Your task to perform on an android device: turn off sleep mode Image 0: 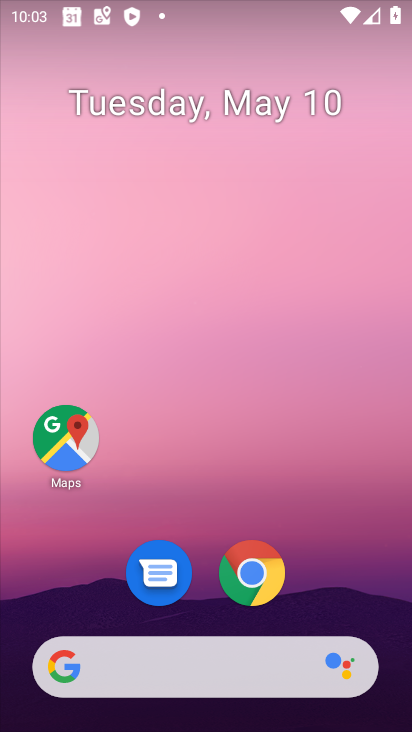
Step 0: drag from (340, 562) to (240, 149)
Your task to perform on an android device: turn off sleep mode Image 1: 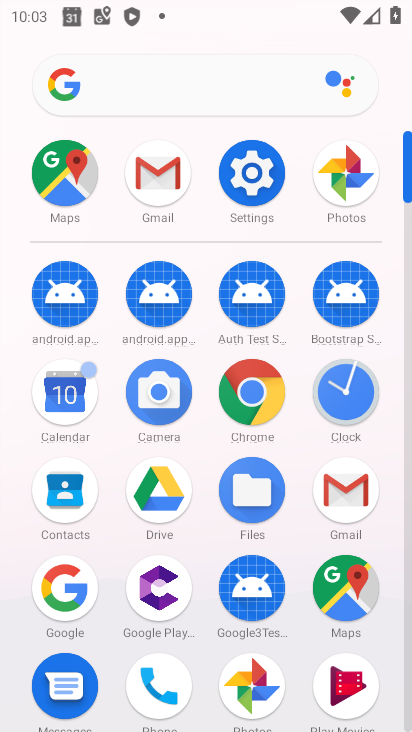
Step 1: click (257, 156)
Your task to perform on an android device: turn off sleep mode Image 2: 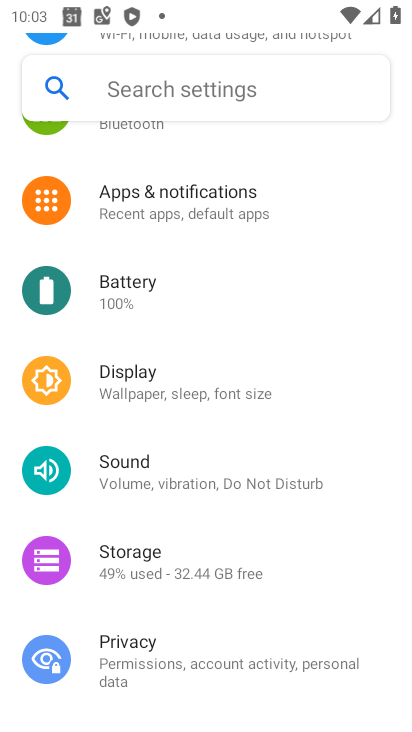
Step 2: drag from (197, 289) to (197, 708)
Your task to perform on an android device: turn off sleep mode Image 3: 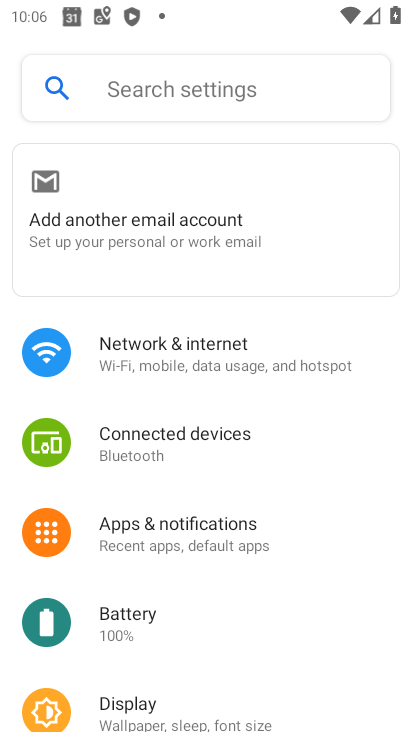
Step 3: drag from (176, 591) to (140, 421)
Your task to perform on an android device: turn off sleep mode Image 4: 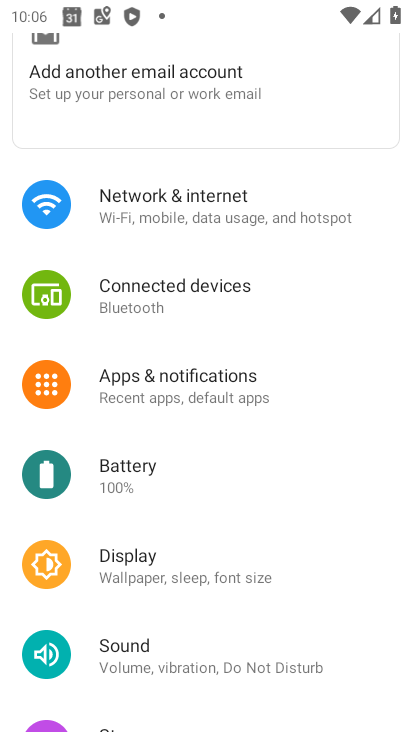
Step 4: click (158, 384)
Your task to perform on an android device: turn off sleep mode Image 5: 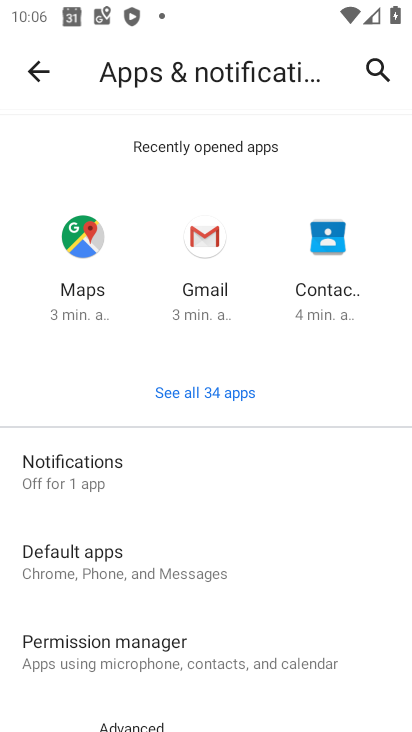
Step 5: task complete